Your task to perform on an android device: Open the phone app and click the voicemail tab. Image 0: 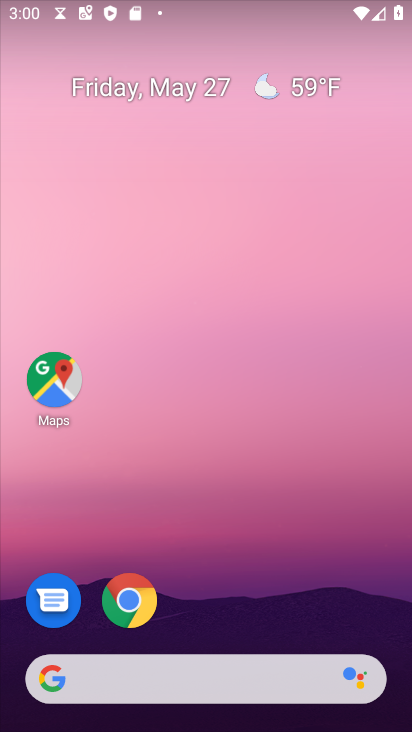
Step 0: drag from (276, 579) to (241, 83)
Your task to perform on an android device: Open the phone app and click the voicemail tab. Image 1: 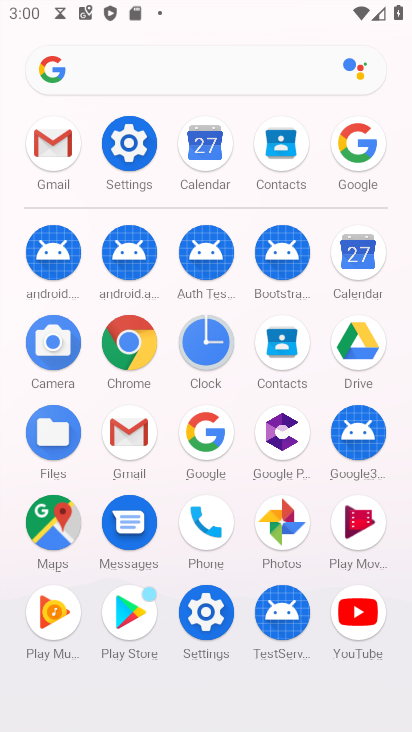
Step 1: click (203, 522)
Your task to perform on an android device: Open the phone app and click the voicemail tab. Image 2: 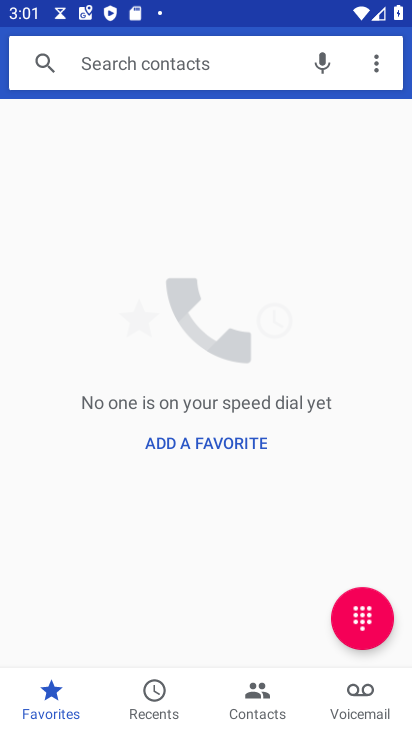
Step 2: click (367, 692)
Your task to perform on an android device: Open the phone app and click the voicemail tab. Image 3: 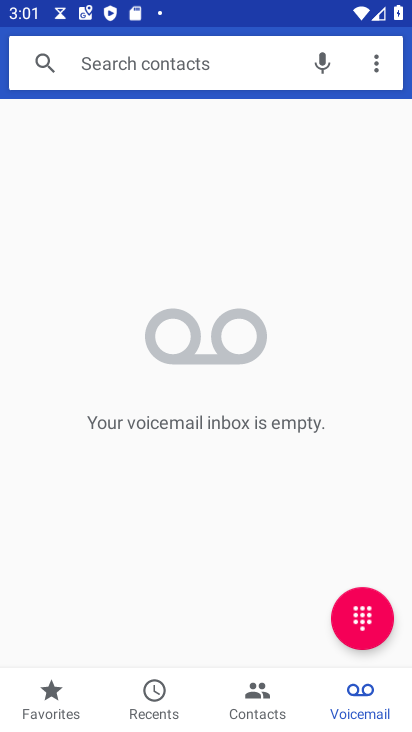
Step 3: task complete